Your task to perform on an android device: set the stopwatch Image 0: 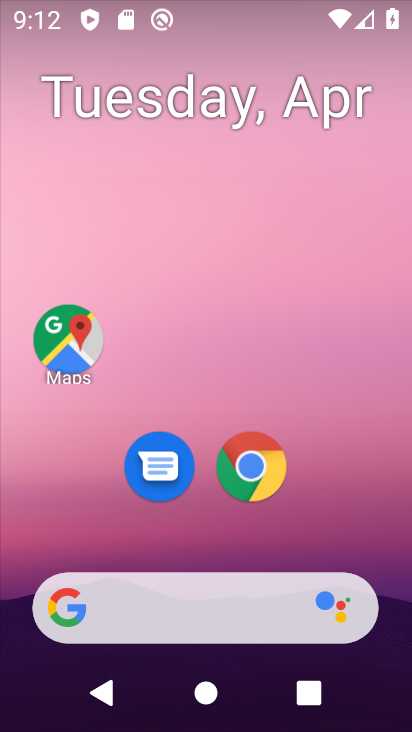
Step 0: click (248, 473)
Your task to perform on an android device: set the stopwatch Image 1: 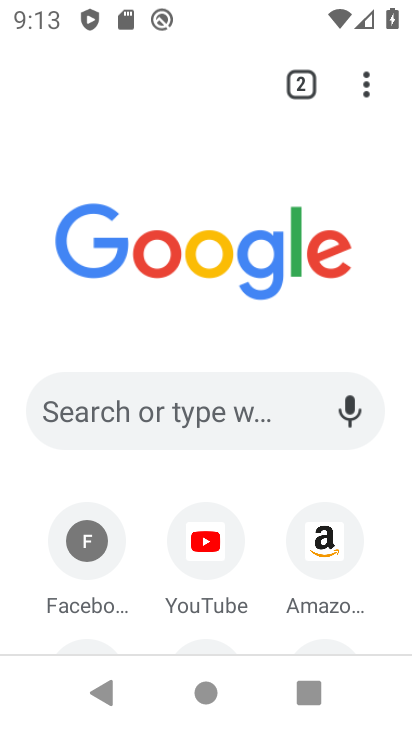
Step 1: click (225, 690)
Your task to perform on an android device: set the stopwatch Image 2: 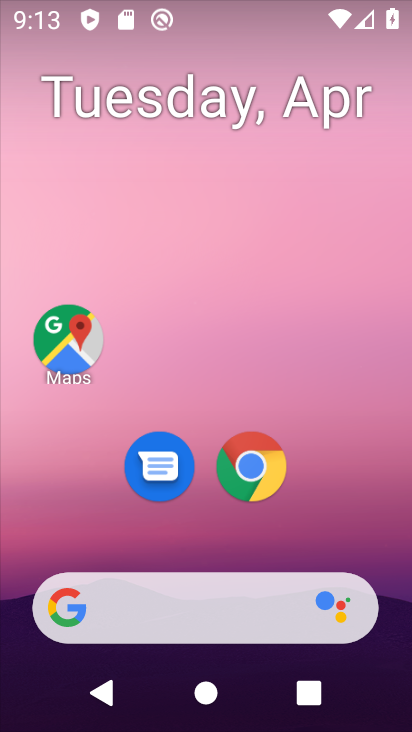
Step 2: drag from (339, 507) to (303, 159)
Your task to perform on an android device: set the stopwatch Image 3: 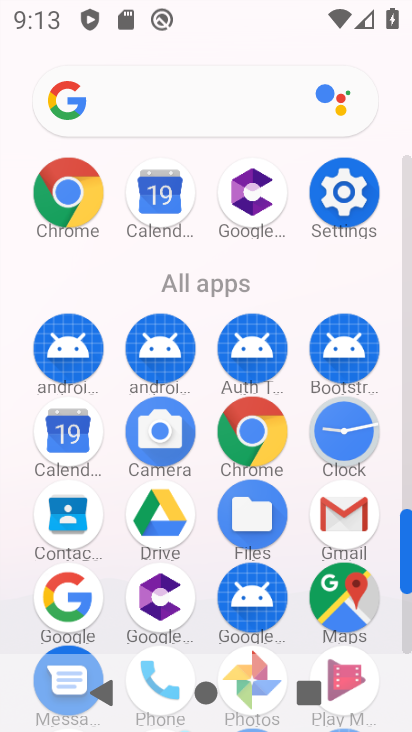
Step 3: click (333, 451)
Your task to perform on an android device: set the stopwatch Image 4: 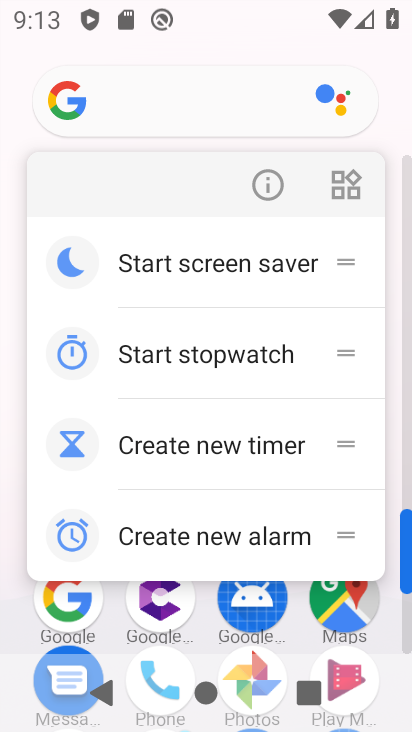
Step 4: click (408, 520)
Your task to perform on an android device: set the stopwatch Image 5: 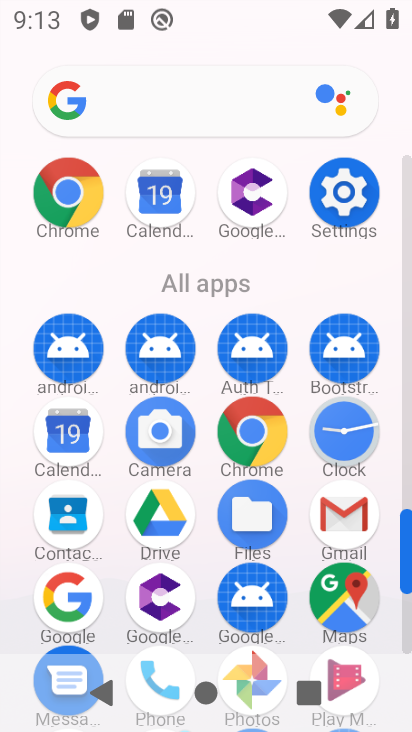
Step 5: click (346, 435)
Your task to perform on an android device: set the stopwatch Image 6: 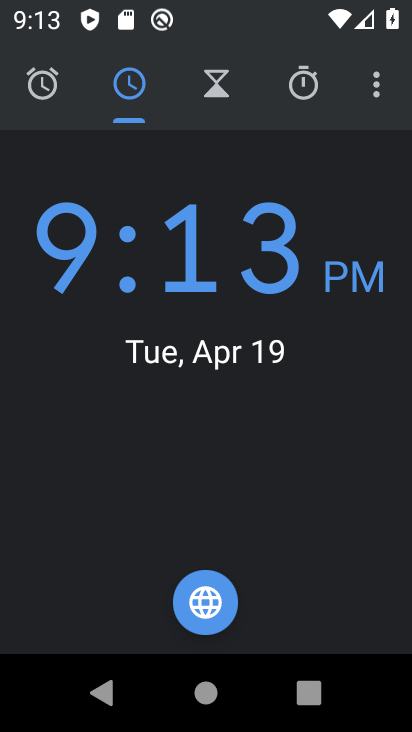
Step 6: click (306, 82)
Your task to perform on an android device: set the stopwatch Image 7: 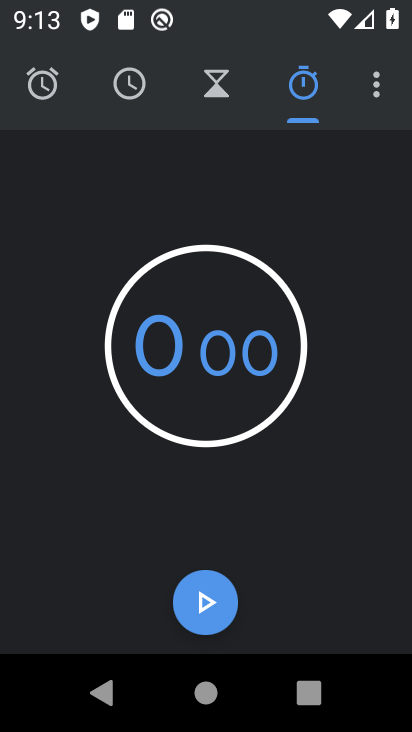
Step 7: task complete